Your task to perform on an android device: Go to notification settings Image 0: 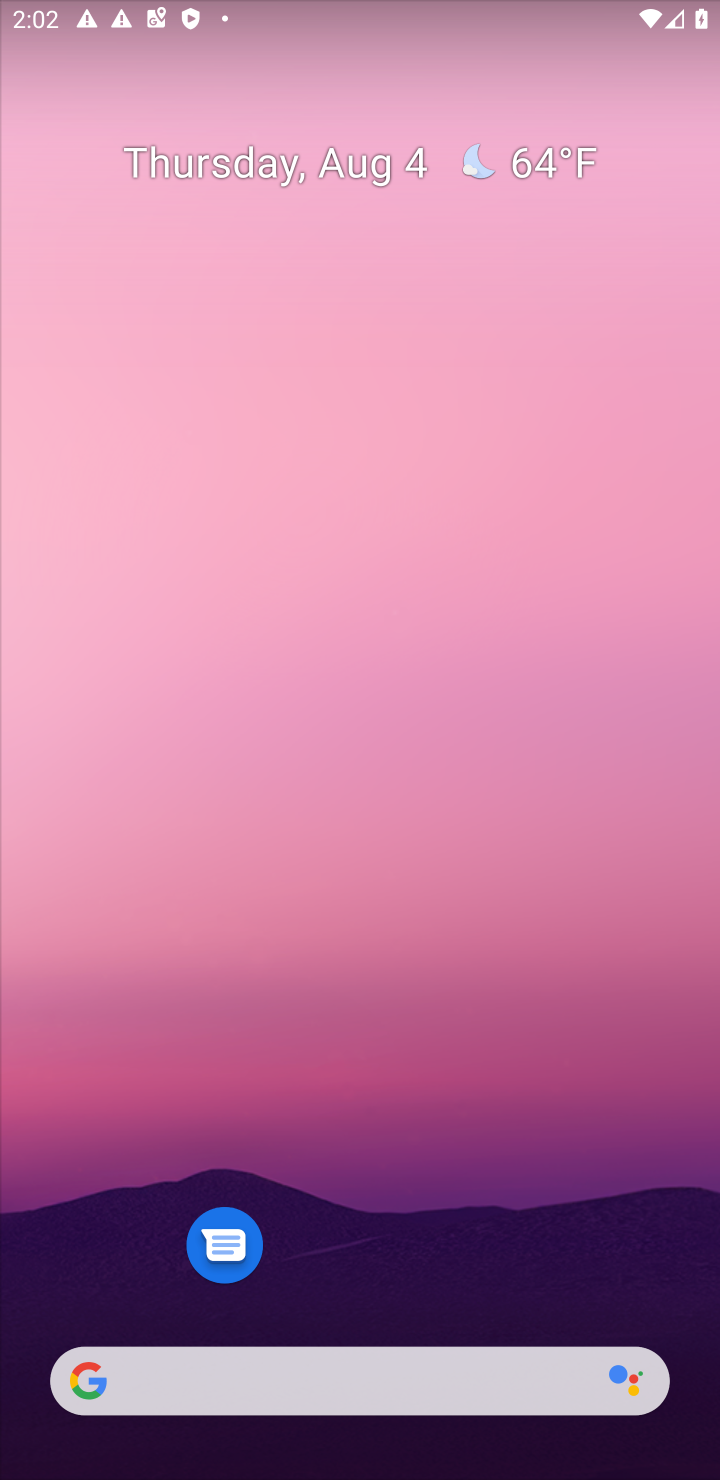
Step 0: drag from (434, 1298) to (439, 430)
Your task to perform on an android device: Go to notification settings Image 1: 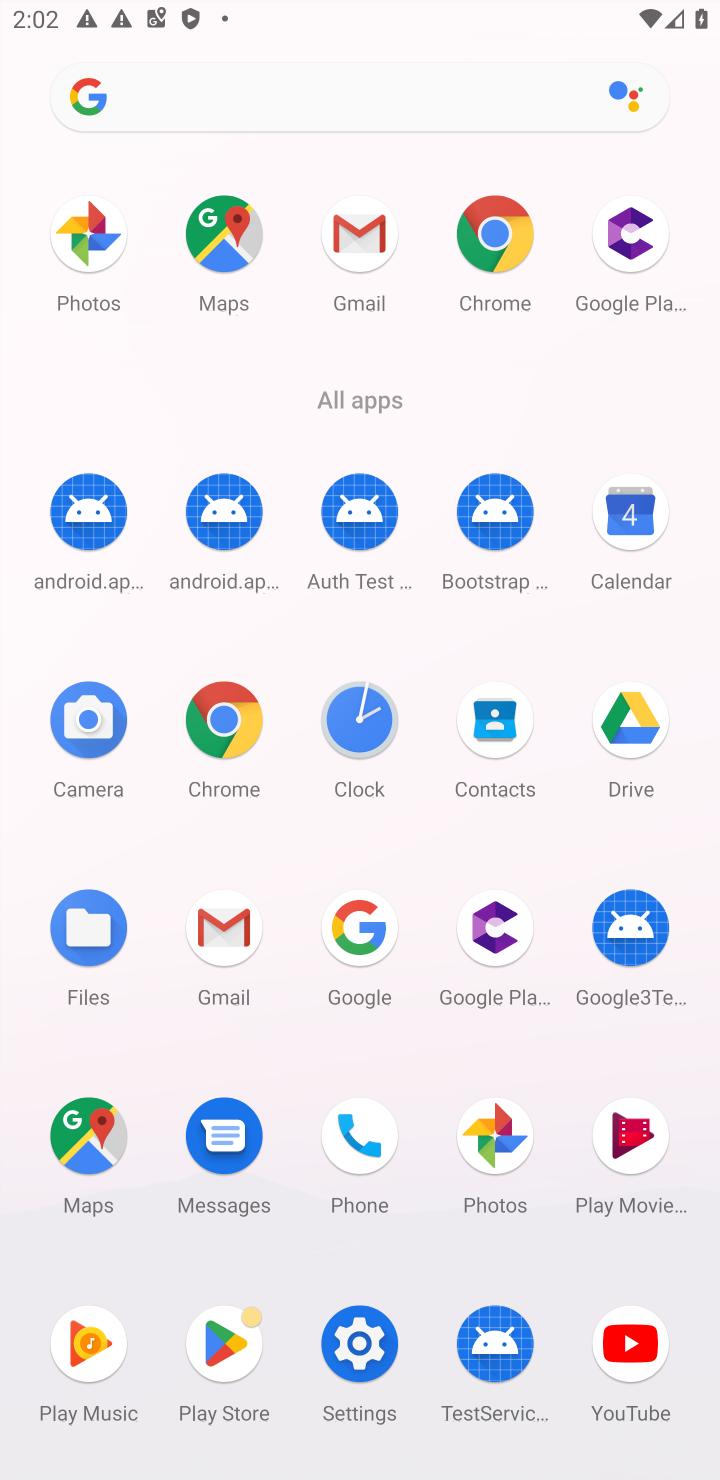
Step 1: click (368, 1317)
Your task to perform on an android device: Go to notification settings Image 2: 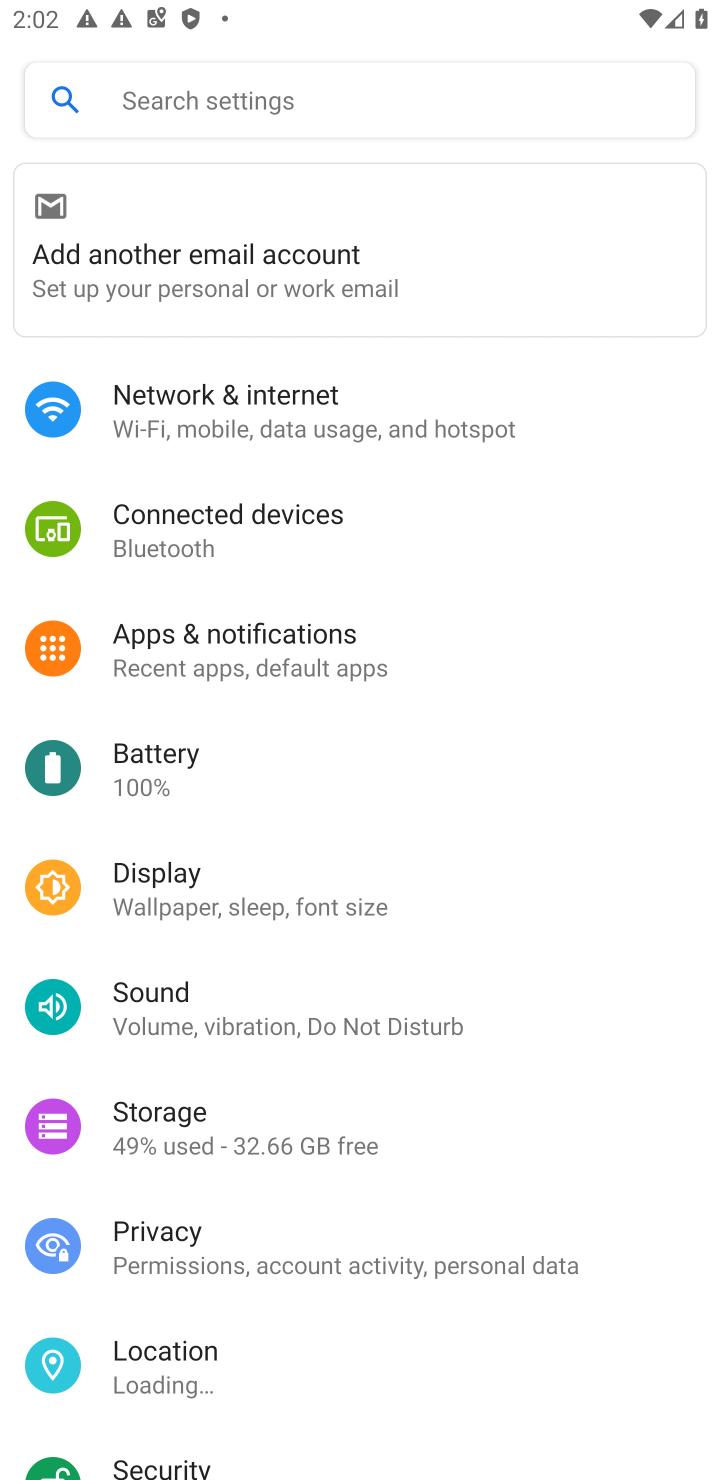
Step 2: click (178, 658)
Your task to perform on an android device: Go to notification settings Image 3: 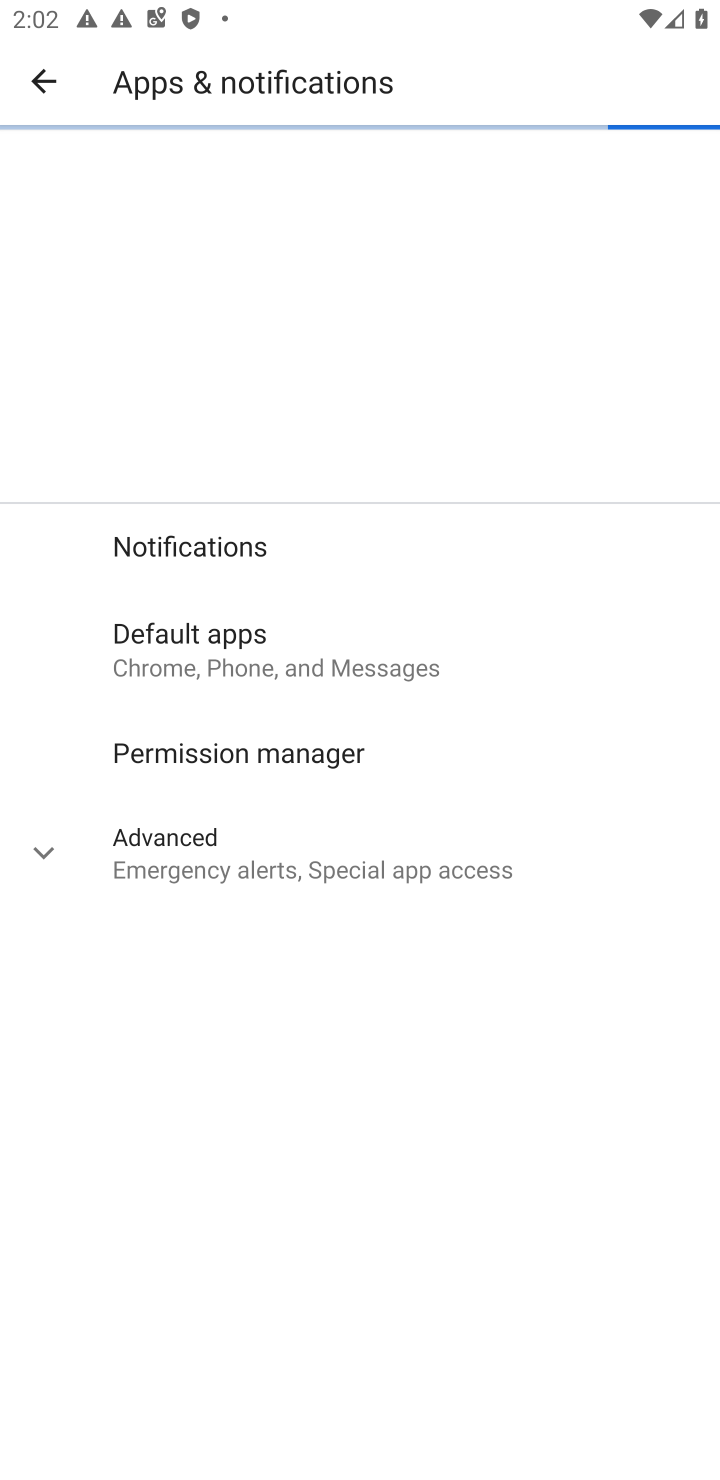
Step 3: click (194, 554)
Your task to perform on an android device: Go to notification settings Image 4: 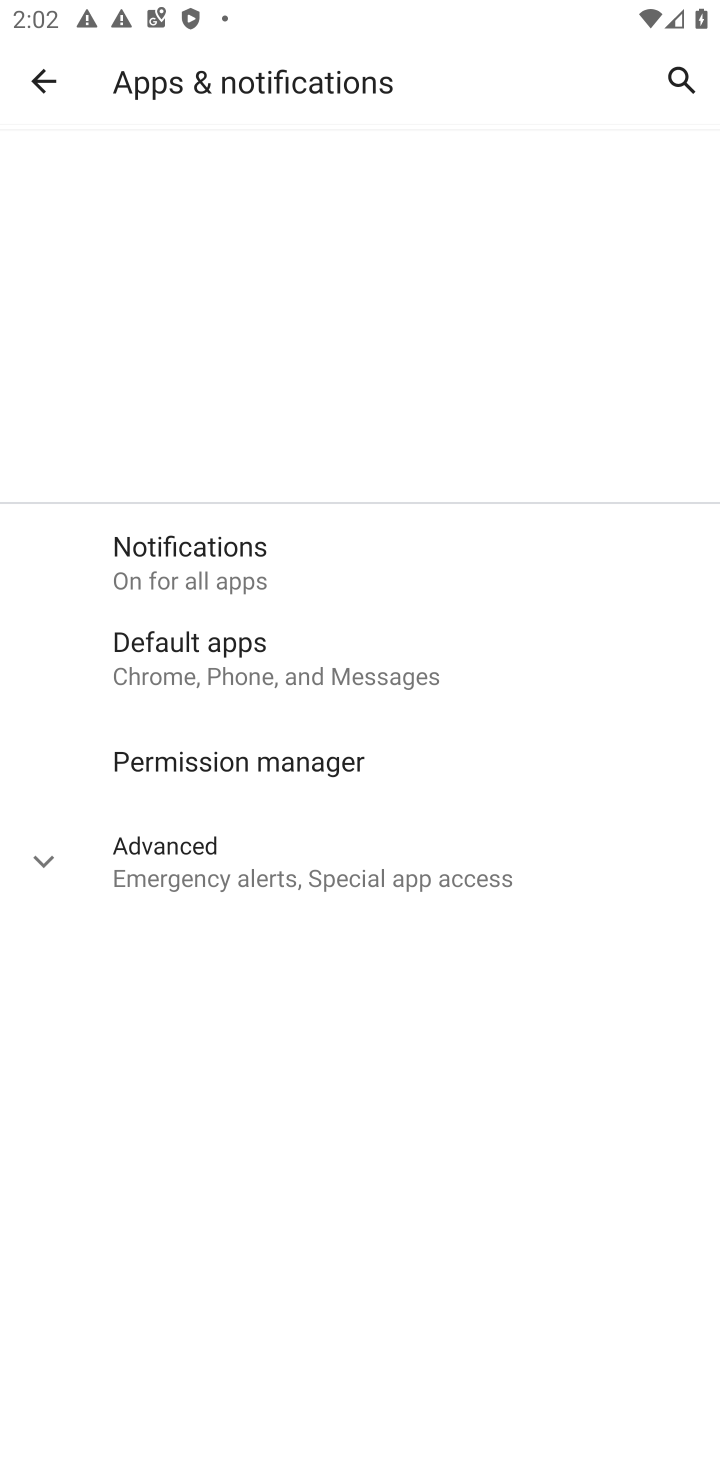
Step 4: click (194, 548)
Your task to perform on an android device: Go to notification settings Image 5: 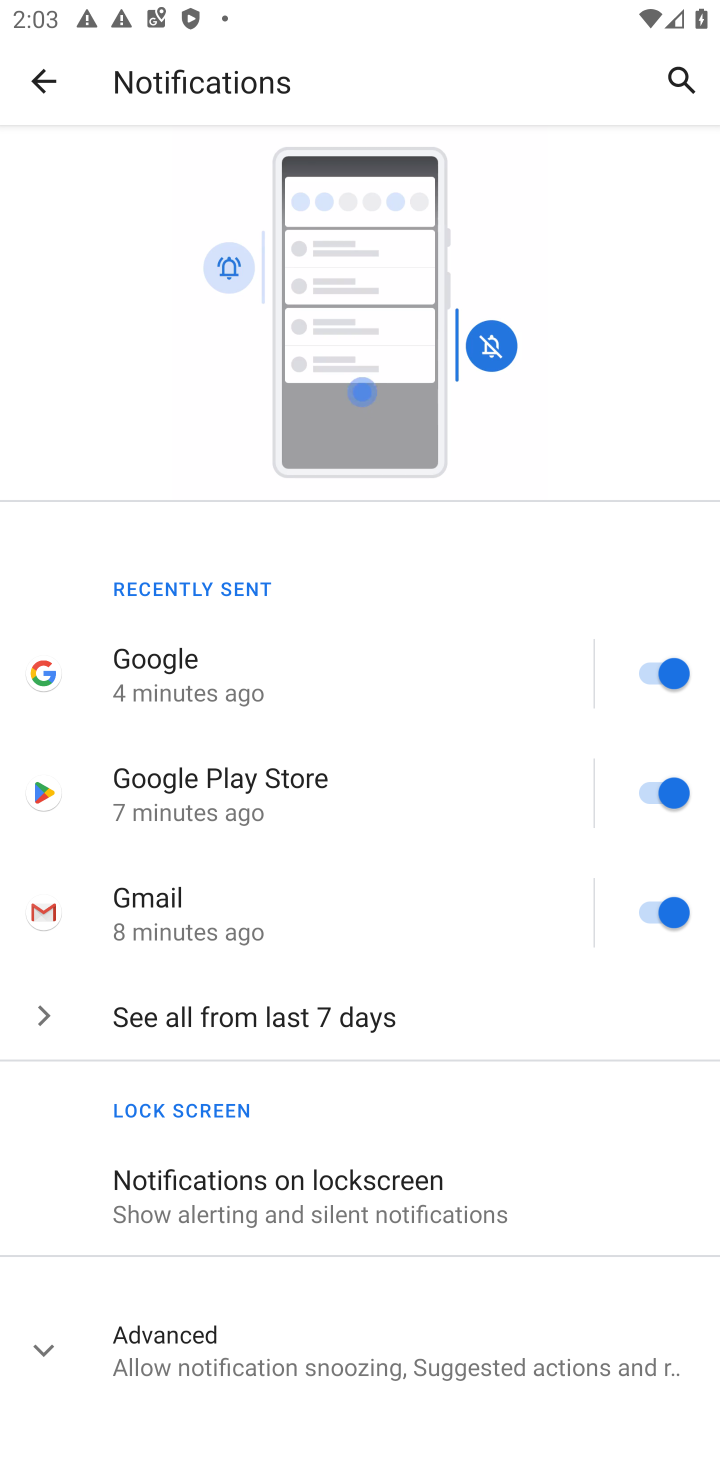
Step 5: task complete